Your task to perform on an android device: move a message to another label in the gmail app Image 0: 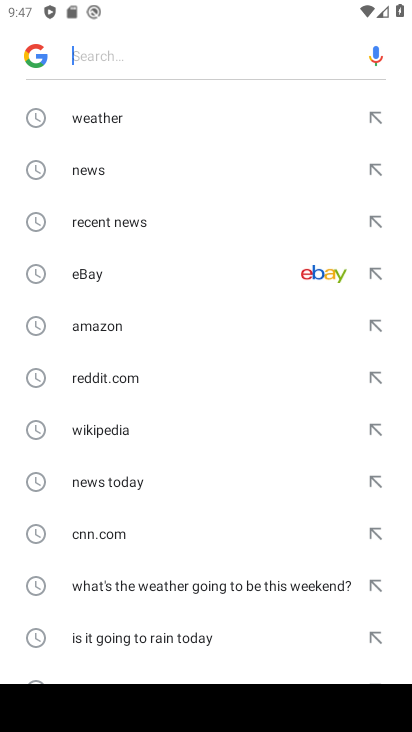
Step 0: press back button
Your task to perform on an android device: move a message to another label in the gmail app Image 1: 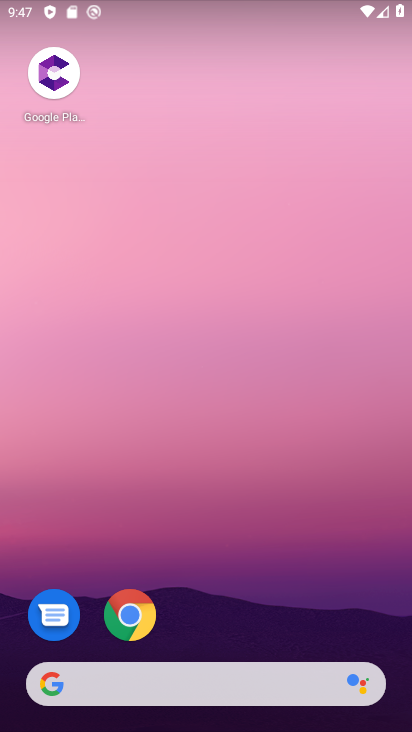
Step 1: drag from (256, 600) to (279, 115)
Your task to perform on an android device: move a message to another label in the gmail app Image 2: 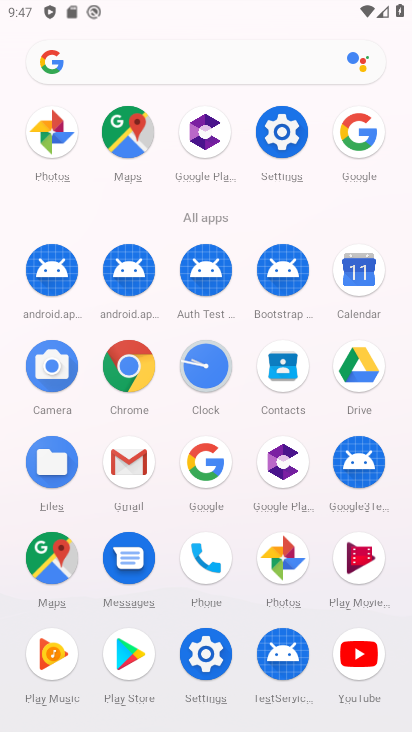
Step 2: click (126, 466)
Your task to perform on an android device: move a message to another label in the gmail app Image 3: 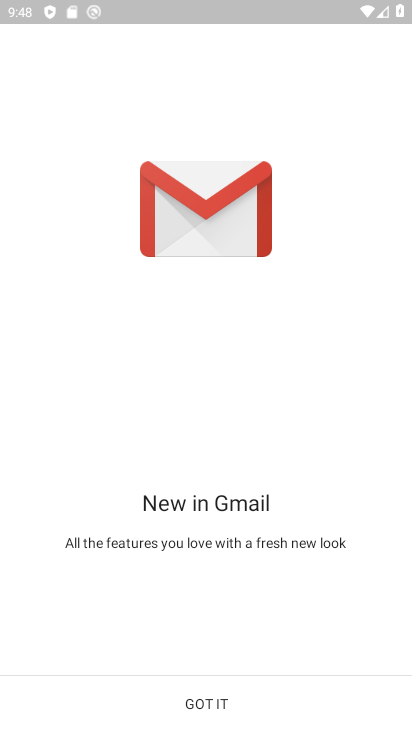
Step 3: click (190, 704)
Your task to perform on an android device: move a message to another label in the gmail app Image 4: 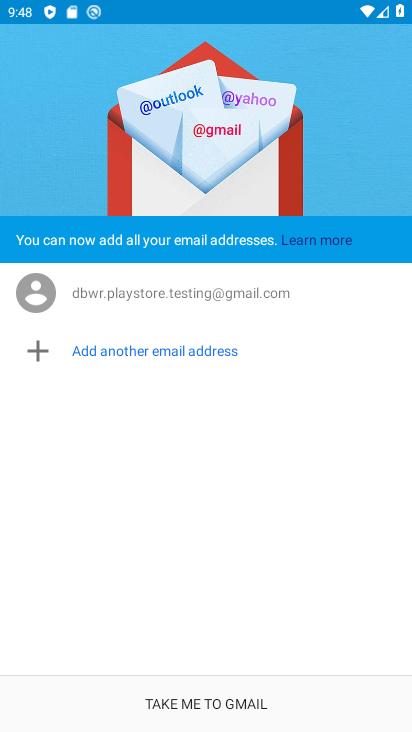
Step 4: click (195, 697)
Your task to perform on an android device: move a message to another label in the gmail app Image 5: 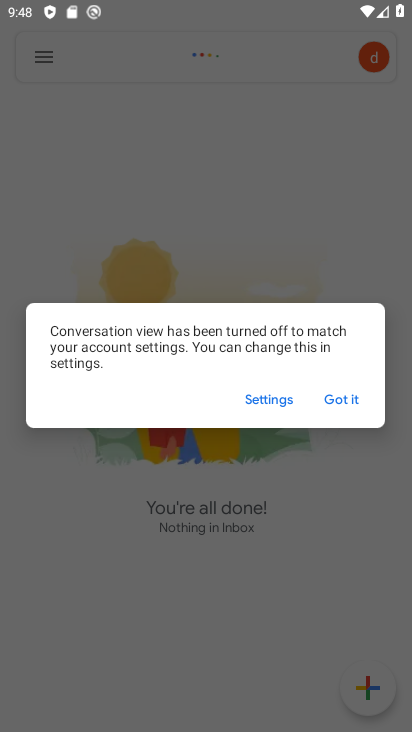
Step 5: click (355, 394)
Your task to perform on an android device: move a message to another label in the gmail app Image 6: 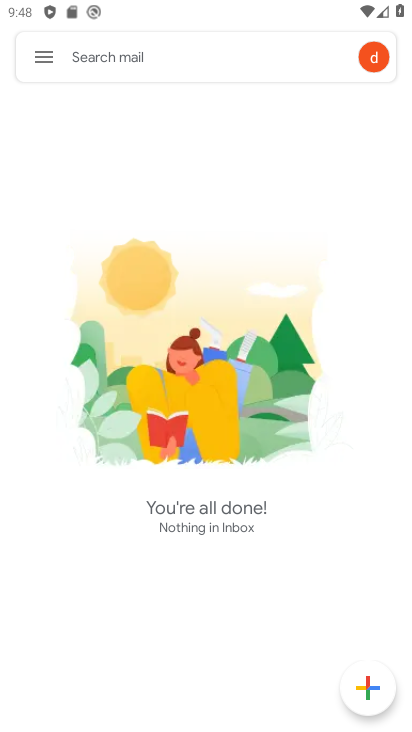
Step 6: click (34, 60)
Your task to perform on an android device: move a message to another label in the gmail app Image 7: 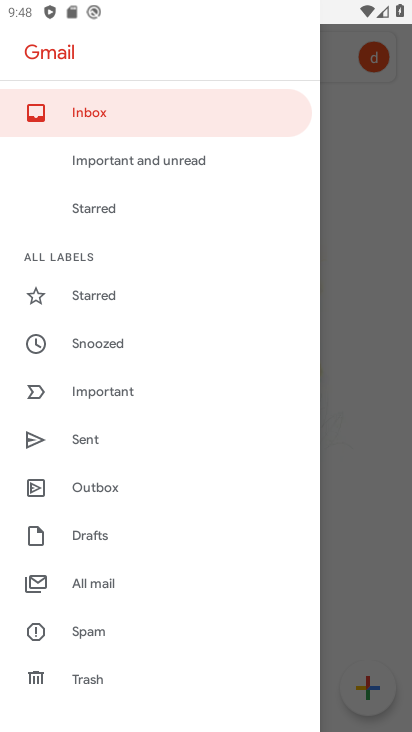
Step 7: click (103, 597)
Your task to perform on an android device: move a message to another label in the gmail app Image 8: 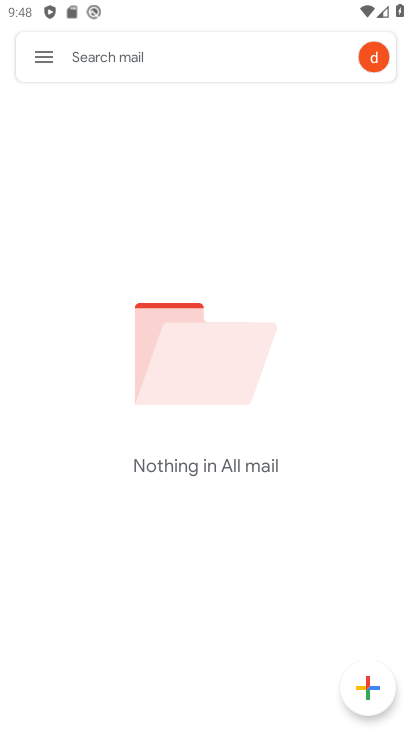
Step 8: click (45, 55)
Your task to perform on an android device: move a message to another label in the gmail app Image 9: 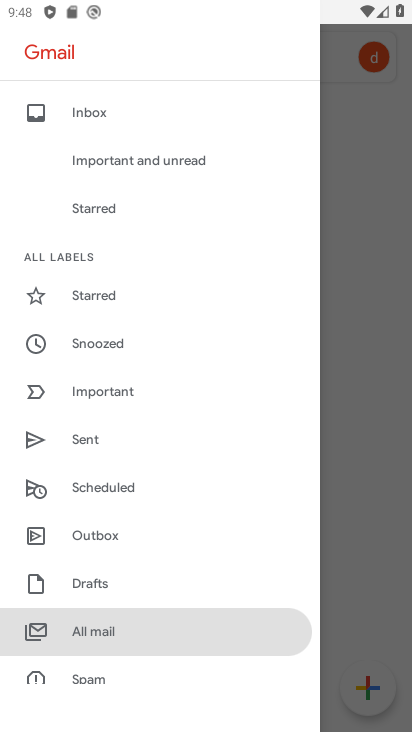
Step 9: click (131, 158)
Your task to perform on an android device: move a message to another label in the gmail app Image 10: 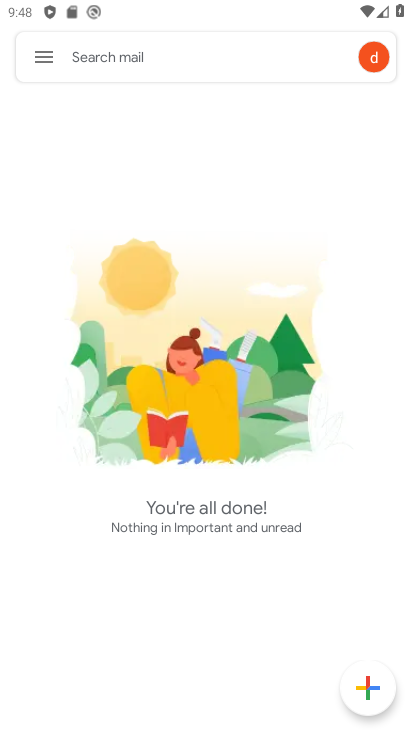
Step 10: task complete